Your task to perform on an android device: Go to Wikipedia Image 0: 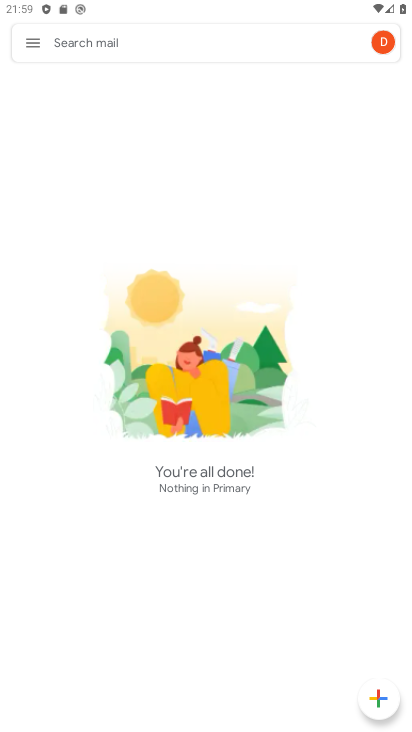
Step 0: press home button
Your task to perform on an android device: Go to Wikipedia Image 1: 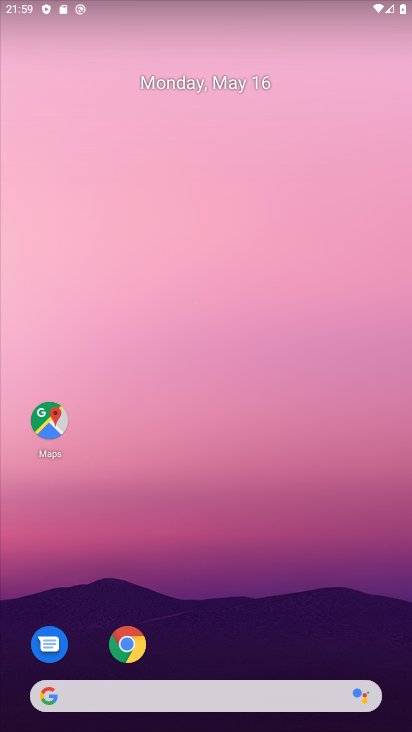
Step 1: click (131, 641)
Your task to perform on an android device: Go to Wikipedia Image 2: 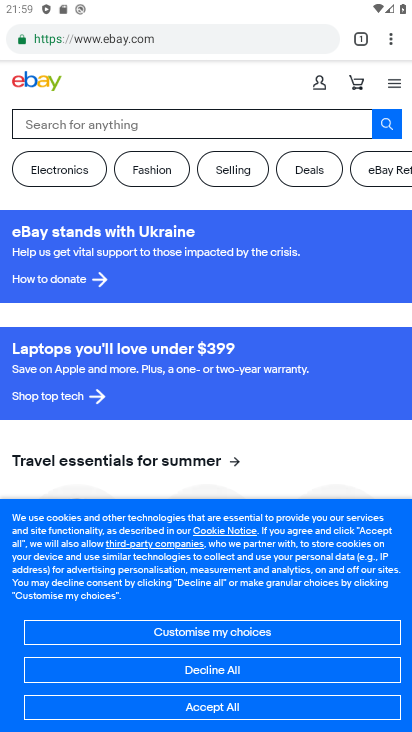
Step 2: click (355, 44)
Your task to perform on an android device: Go to Wikipedia Image 3: 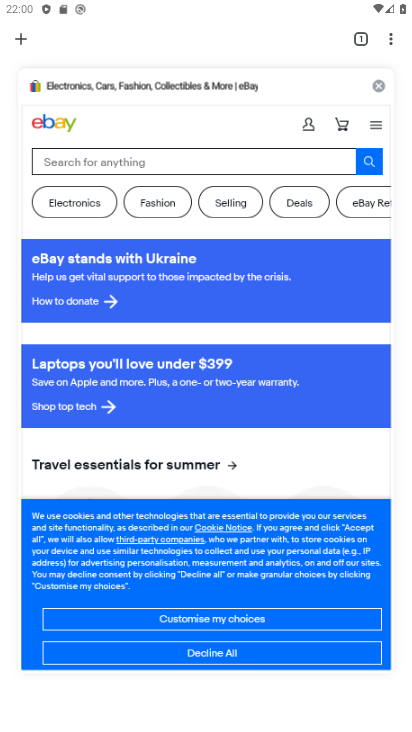
Step 3: click (361, 41)
Your task to perform on an android device: Go to Wikipedia Image 4: 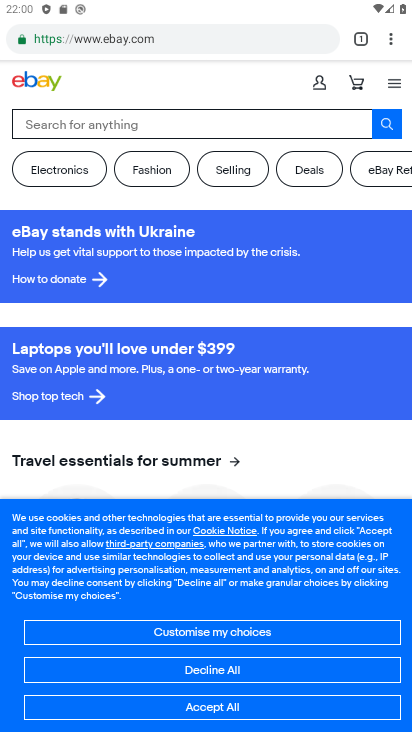
Step 4: click (354, 41)
Your task to perform on an android device: Go to Wikipedia Image 5: 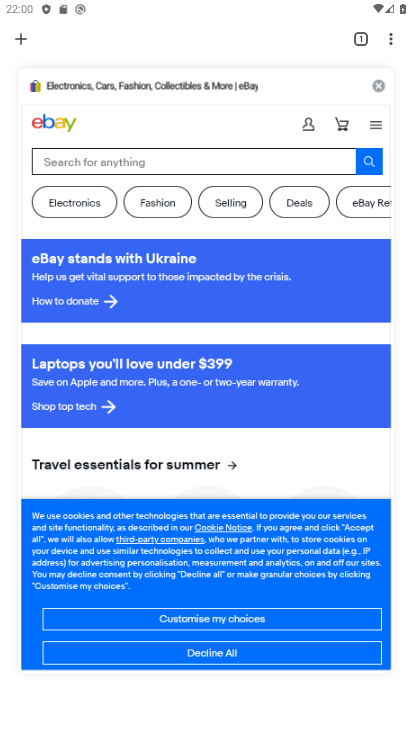
Step 5: click (376, 85)
Your task to perform on an android device: Go to Wikipedia Image 6: 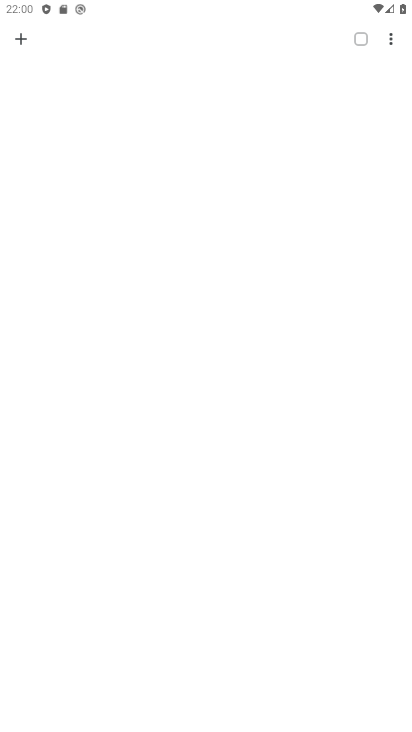
Step 6: click (19, 39)
Your task to perform on an android device: Go to Wikipedia Image 7: 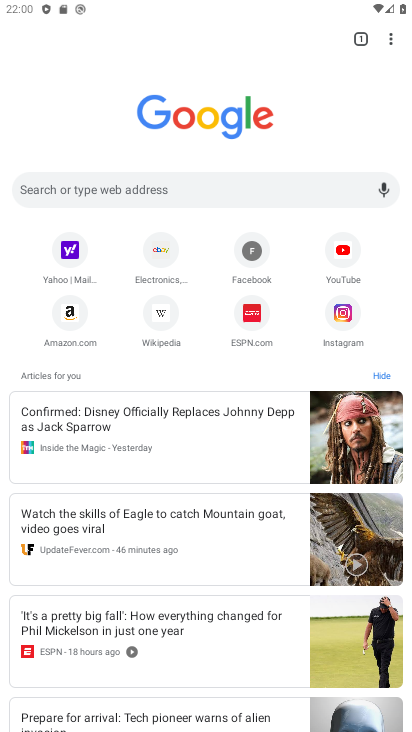
Step 7: click (169, 316)
Your task to perform on an android device: Go to Wikipedia Image 8: 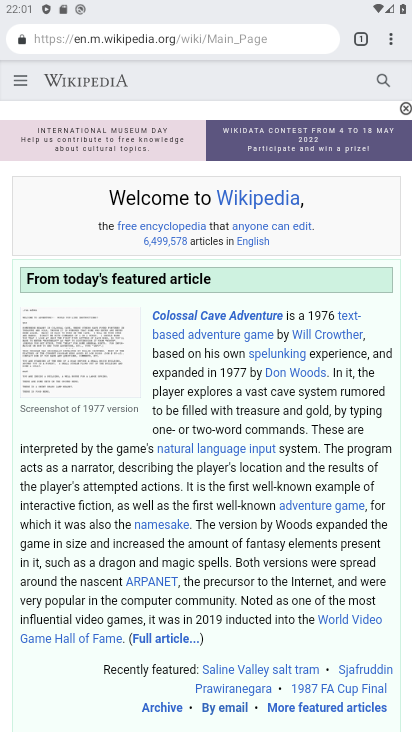
Step 8: task complete